Your task to perform on an android device: Do I have any events this weekend? Image 0: 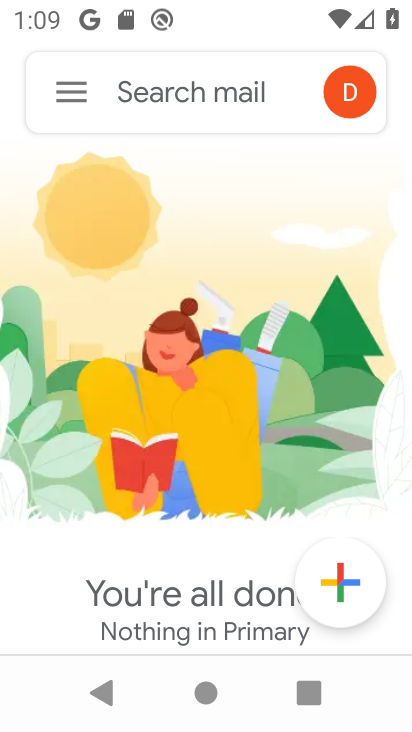
Step 0: press home button
Your task to perform on an android device: Do I have any events this weekend? Image 1: 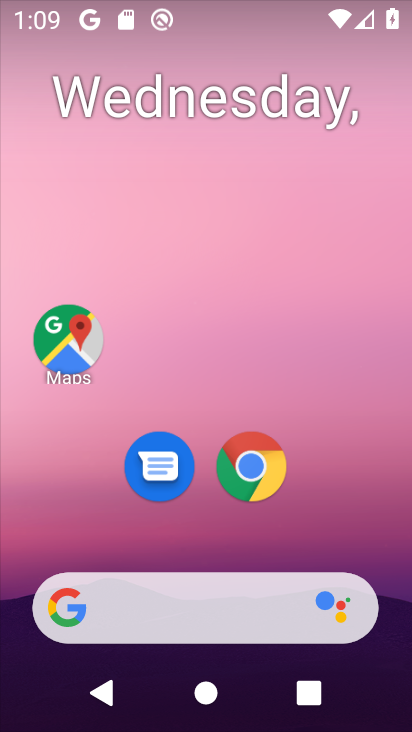
Step 1: drag from (345, 433) to (337, 25)
Your task to perform on an android device: Do I have any events this weekend? Image 2: 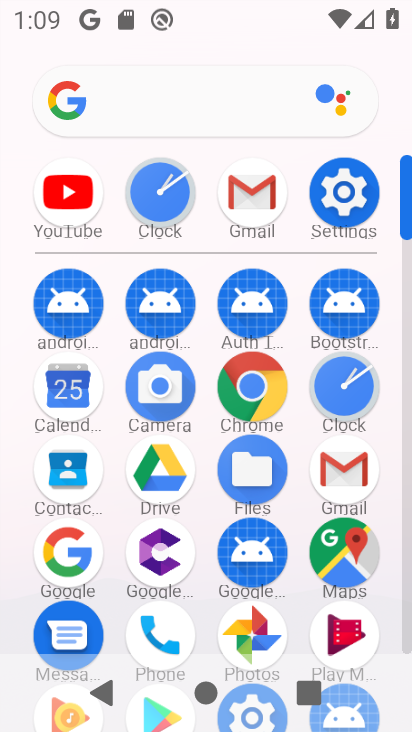
Step 2: click (45, 398)
Your task to perform on an android device: Do I have any events this weekend? Image 3: 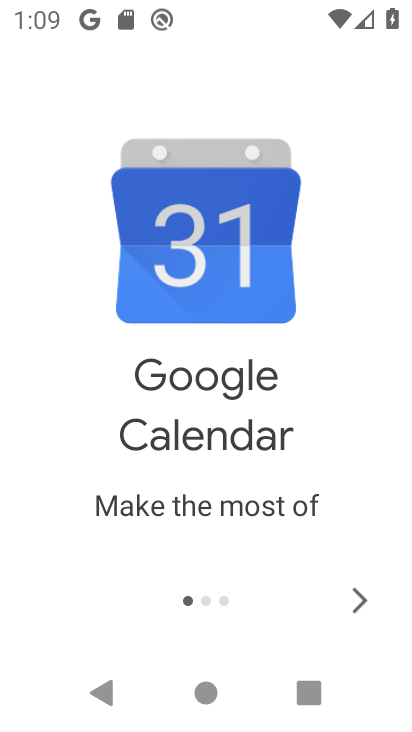
Step 3: click (365, 598)
Your task to perform on an android device: Do I have any events this weekend? Image 4: 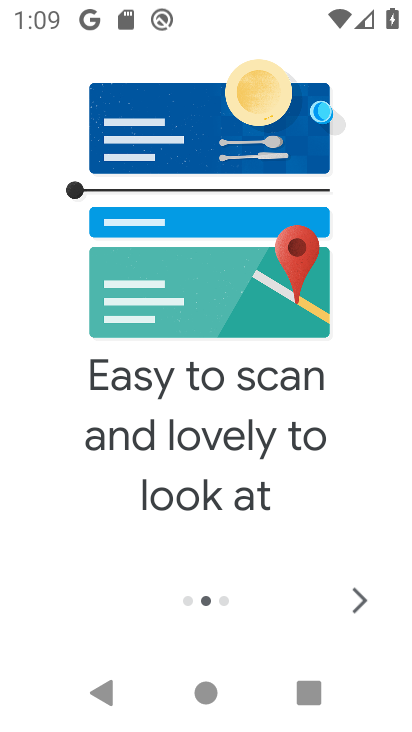
Step 4: click (365, 598)
Your task to perform on an android device: Do I have any events this weekend? Image 5: 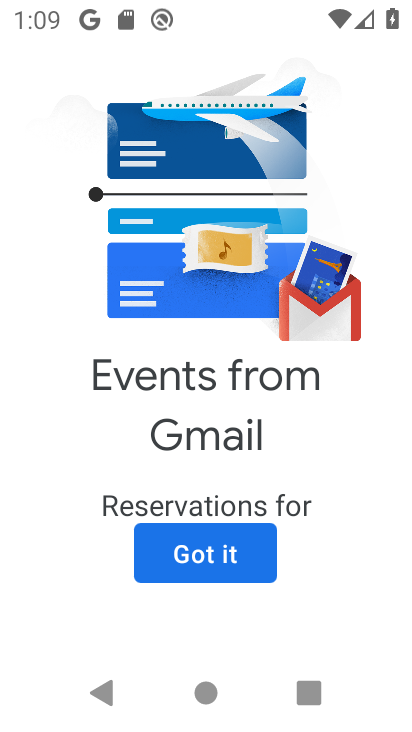
Step 5: click (246, 540)
Your task to perform on an android device: Do I have any events this weekend? Image 6: 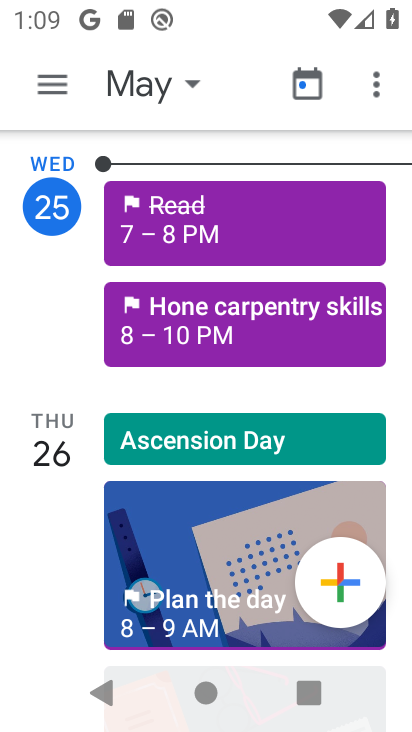
Step 6: click (38, 66)
Your task to perform on an android device: Do I have any events this weekend? Image 7: 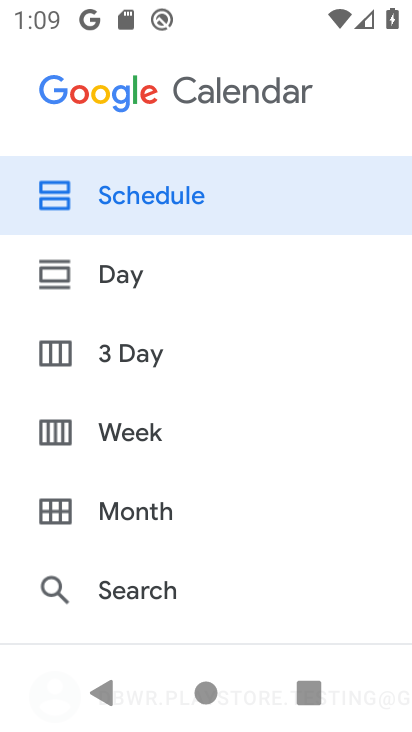
Step 7: click (117, 440)
Your task to perform on an android device: Do I have any events this weekend? Image 8: 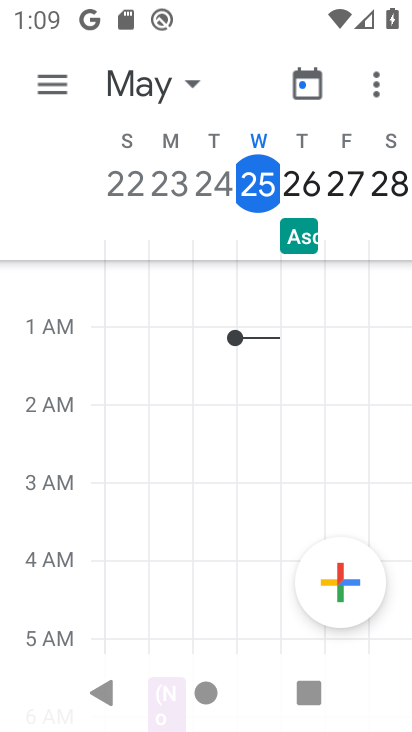
Step 8: task complete